Your task to perform on an android device: empty trash in google photos Image 0: 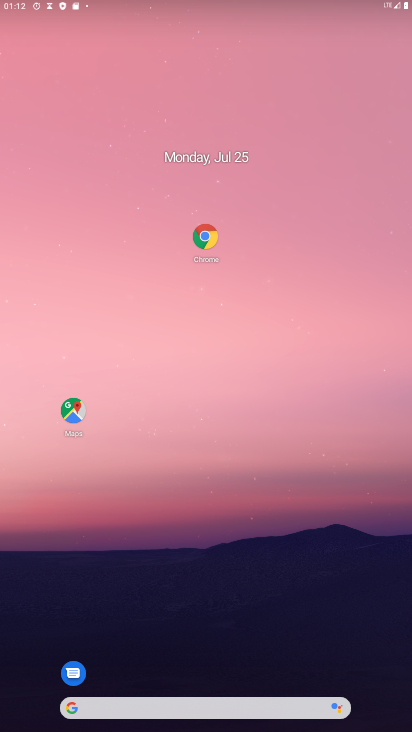
Step 0: press home button
Your task to perform on an android device: empty trash in google photos Image 1: 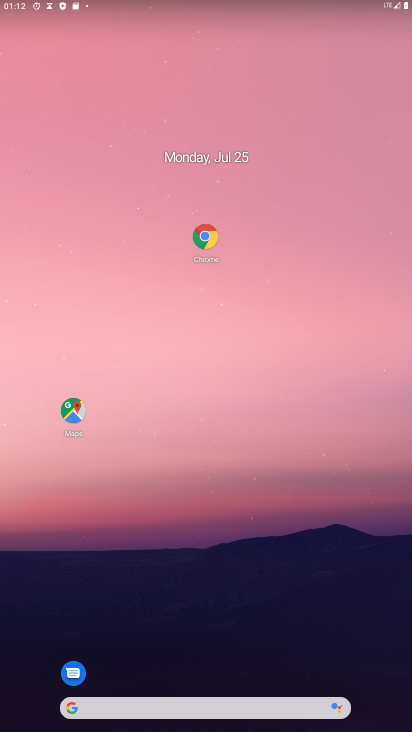
Step 1: drag from (303, 703) to (351, 71)
Your task to perform on an android device: empty trash in google photos Image 2: 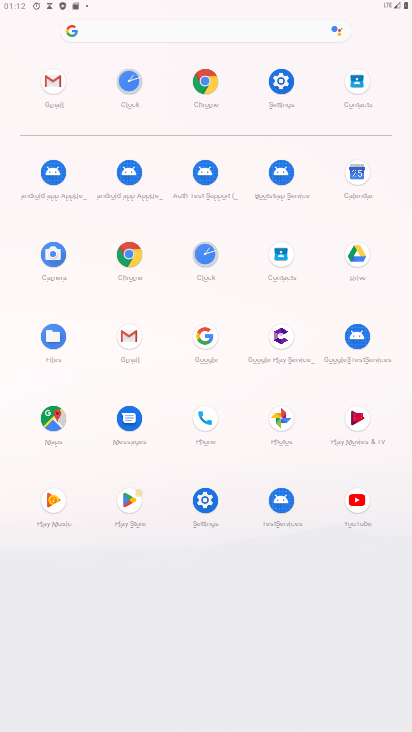
Step 2: click (288, 409)
Your task to perform on an android device: empty trash in google photos Image 3: 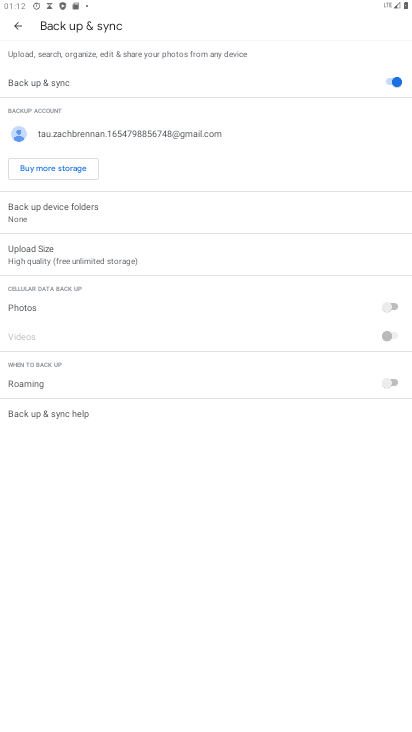
Step 3: press back button
Your task to perform on an android device: empty trash in google photos Image 4: 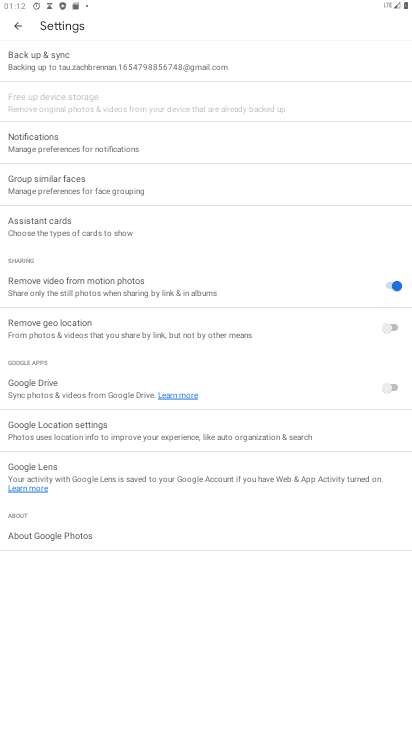
Step 4: press back button
Your task to perform on an android device: empty trash in google photos Image 5: 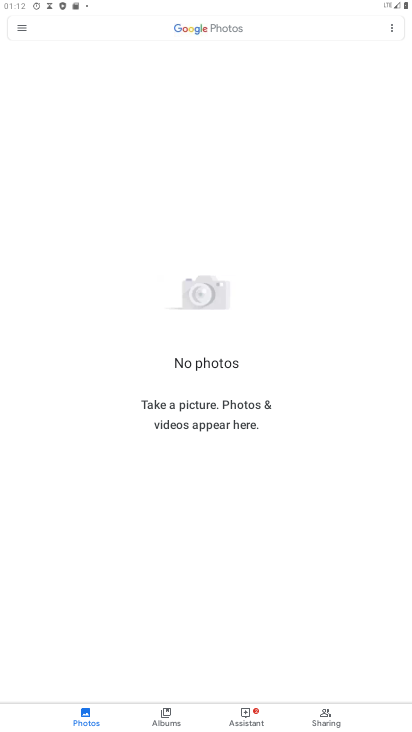
Step 5: click (24, 32)
Your task to perform on an android device: empty trash in google photos Image 6: 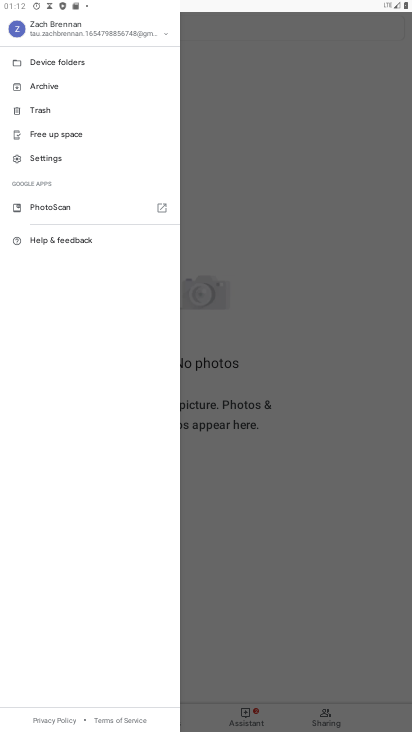
Step 6: click (47, 107)
Your task to perform on an android device: empty trash in google photos Image 7: 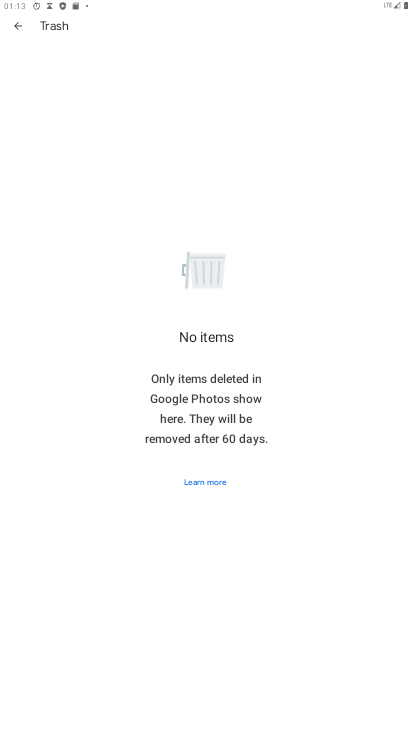
Step 7: task complete